Your task to perform on an android device: What's the latest news in space technology? Image 0: 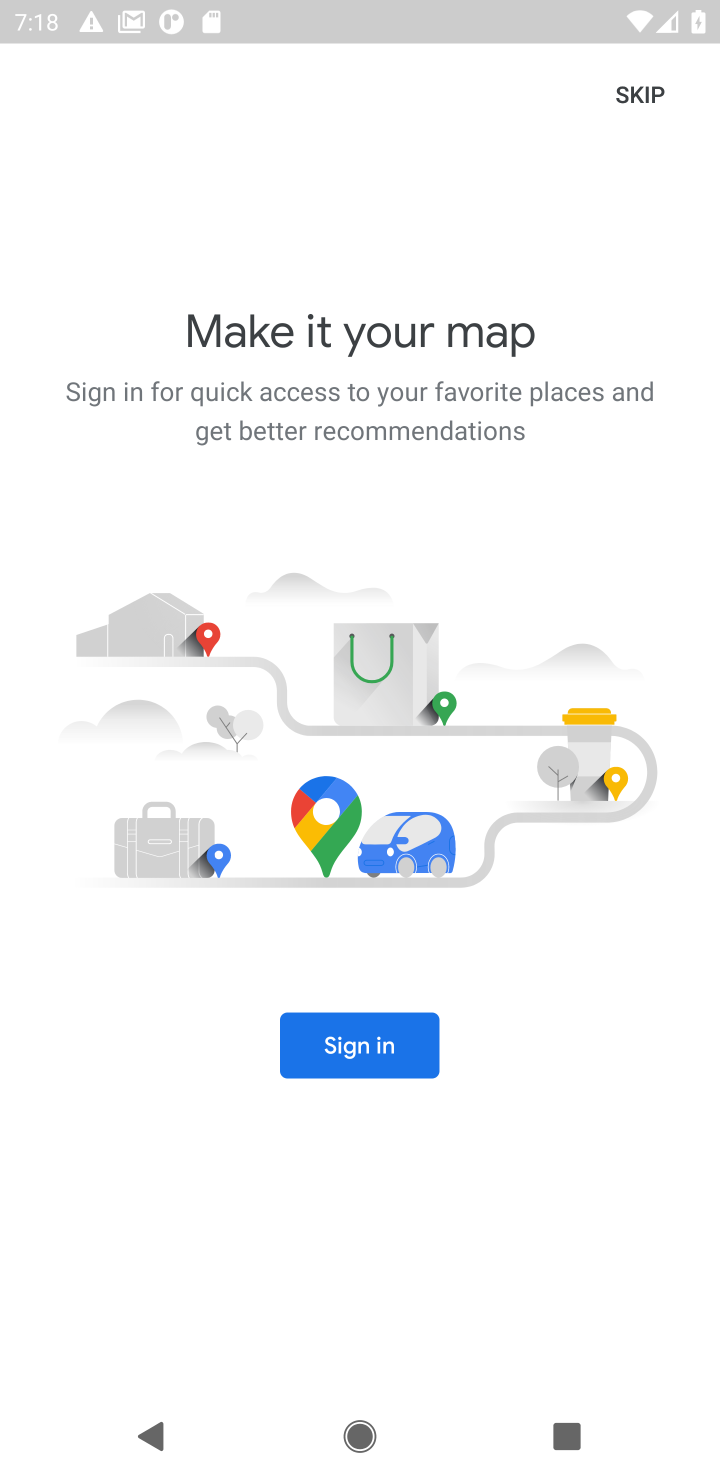
Step 0: press home button
Your task to perform on an android device: What's the latest news in space technology? Image 1: 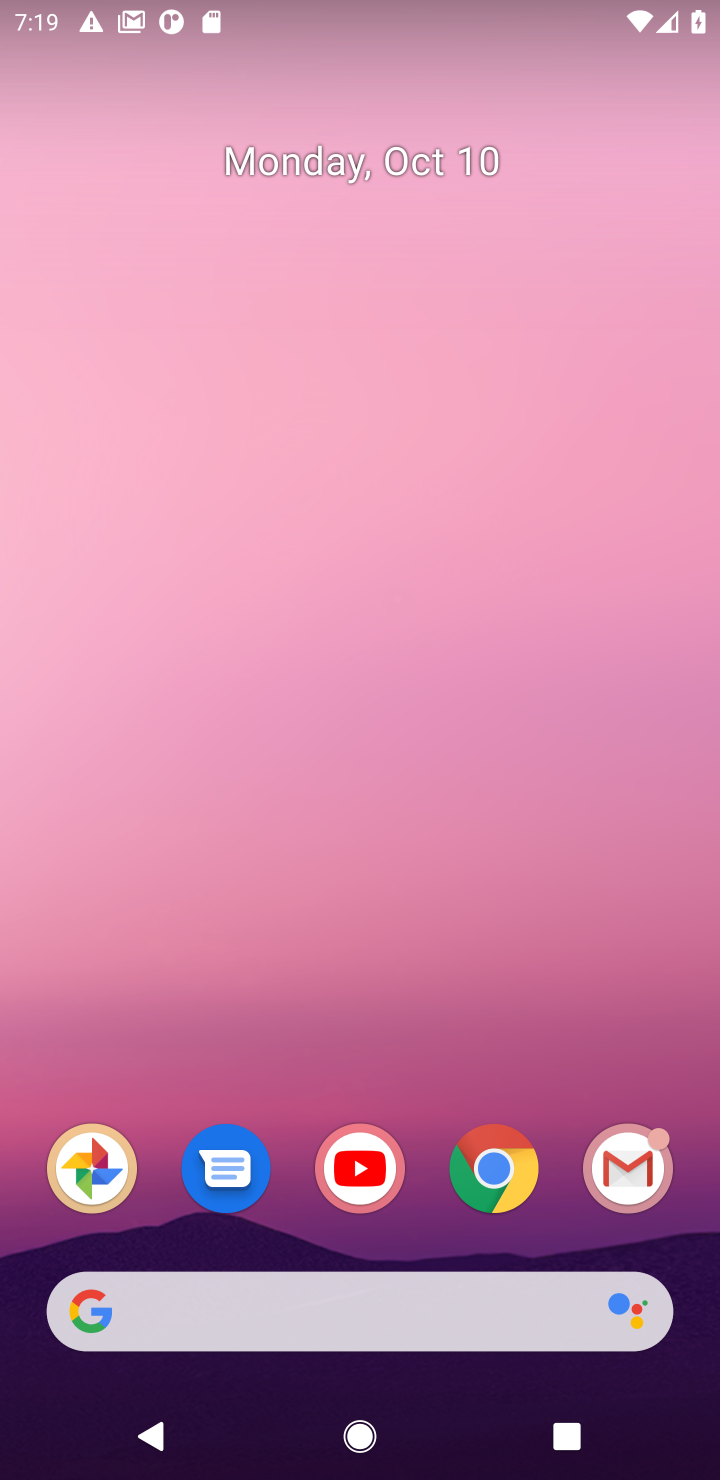
Step 1: click (318, 1319)
Your task to perform on an android device: What's the latest news in space technology? Image 2: 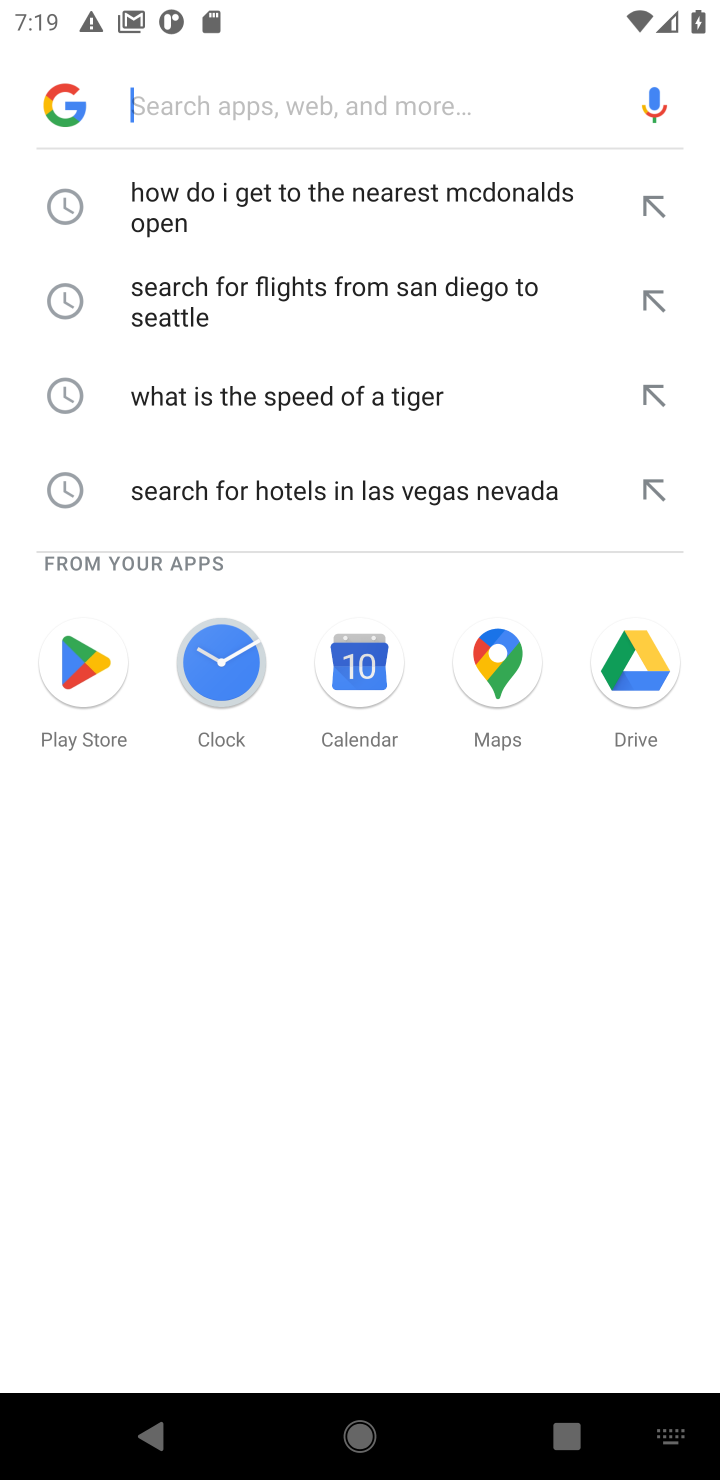
Step 2: click (184, 118)
Your task to perform on an android device: What's the latest news in space technology? Image 3: 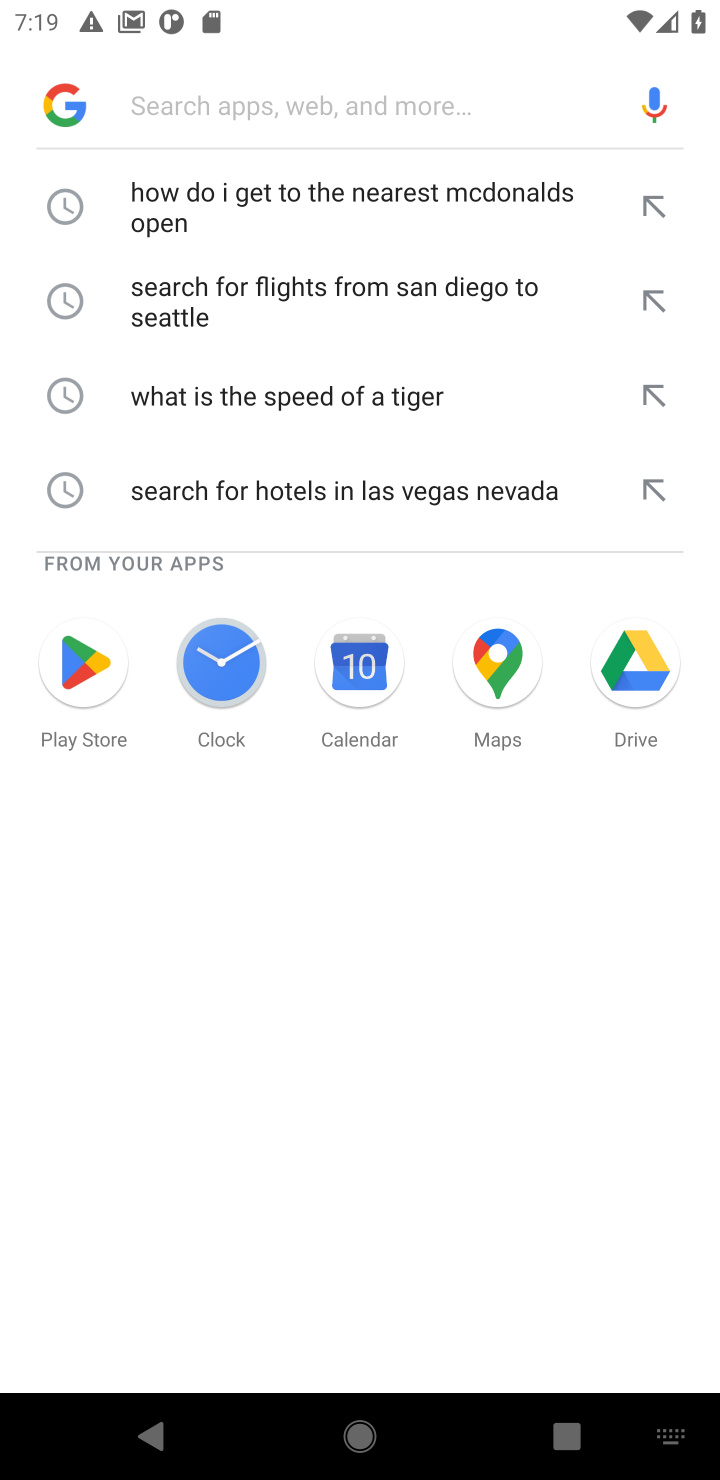
Step 3: type "space technology"
Your task to perform on an android device: What's the latest news in space technology? Image 4: 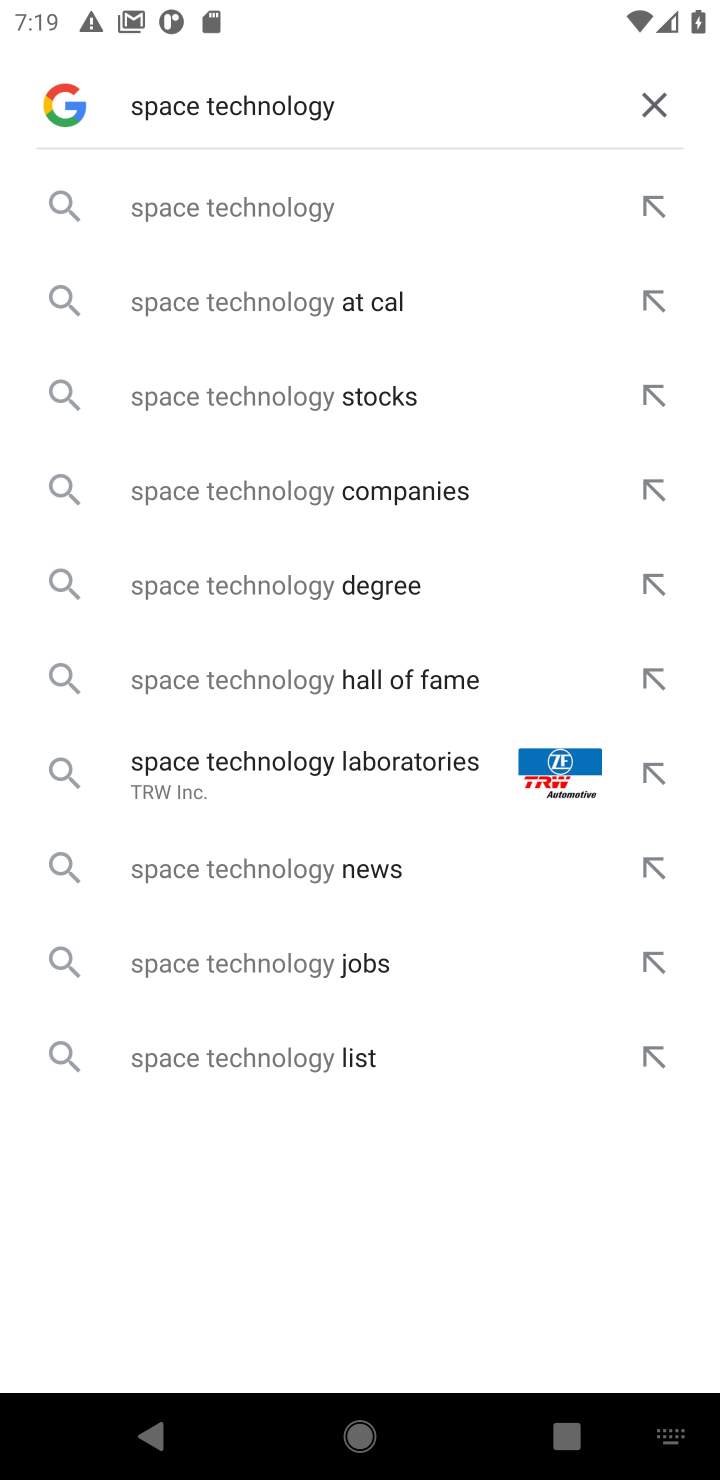
Step 4: click (212, 215)
Your task to perform on an android device: What's the latest news in space technology? Image 5: 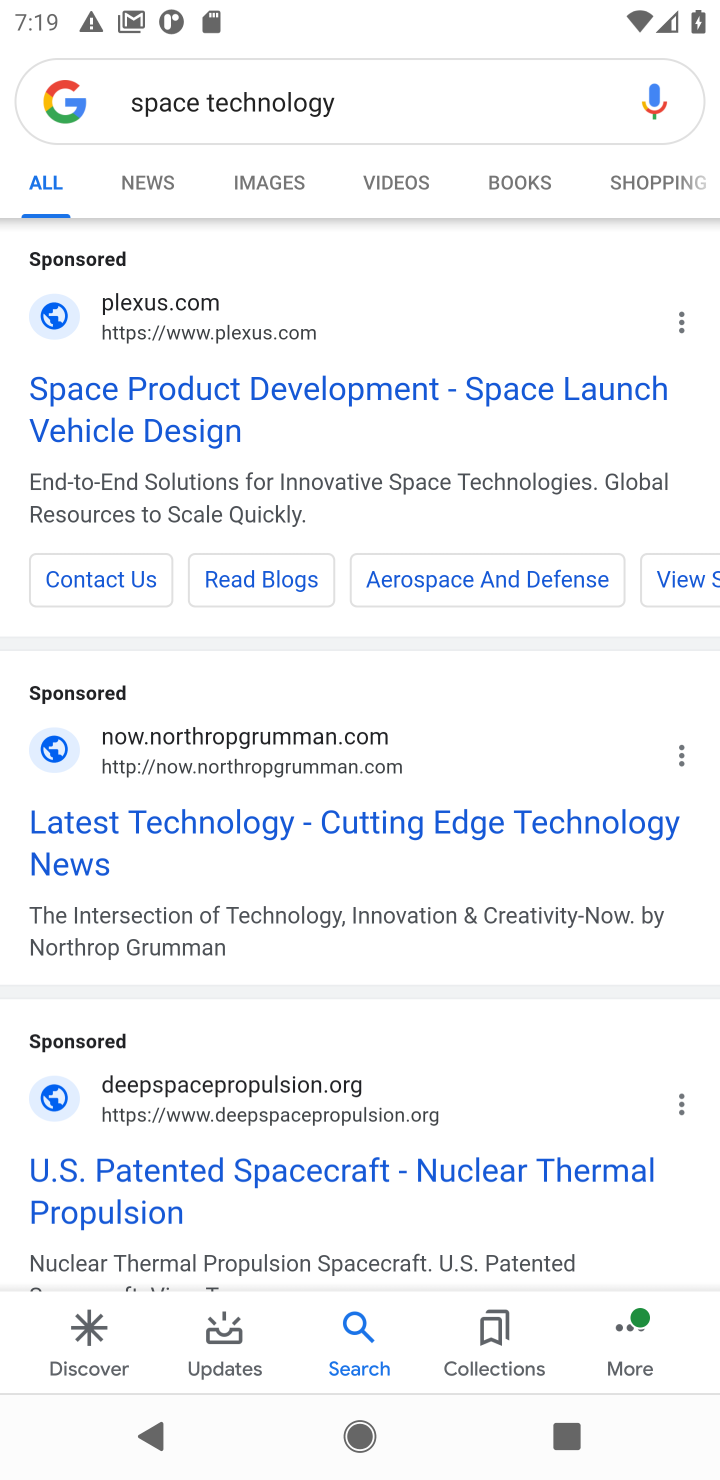
Step 5: click (143, 186)
Your task to perform on an android device: What's the latest news in space technology? Image 6: 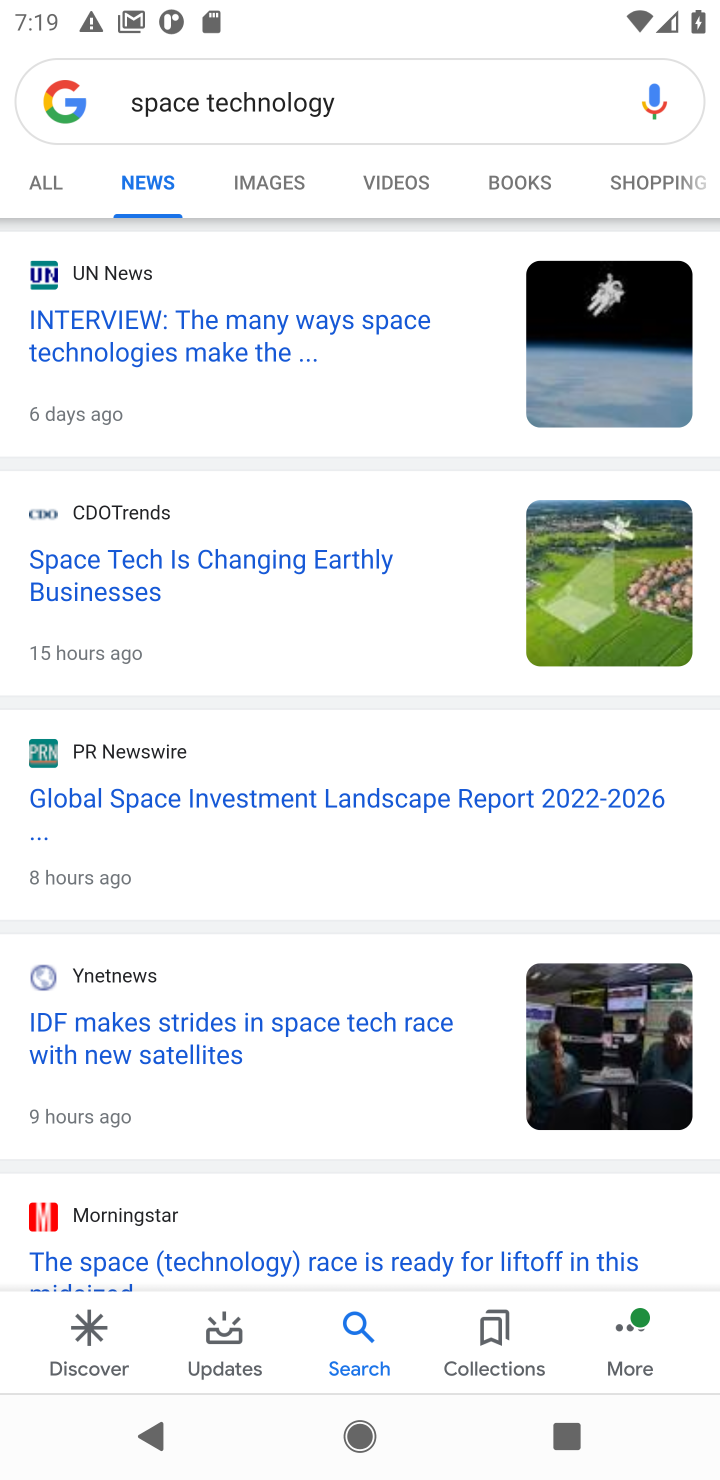
Step 6: click (219, 573)
Your task to perform on an android device: What's the latest news in space technology? Image 7: 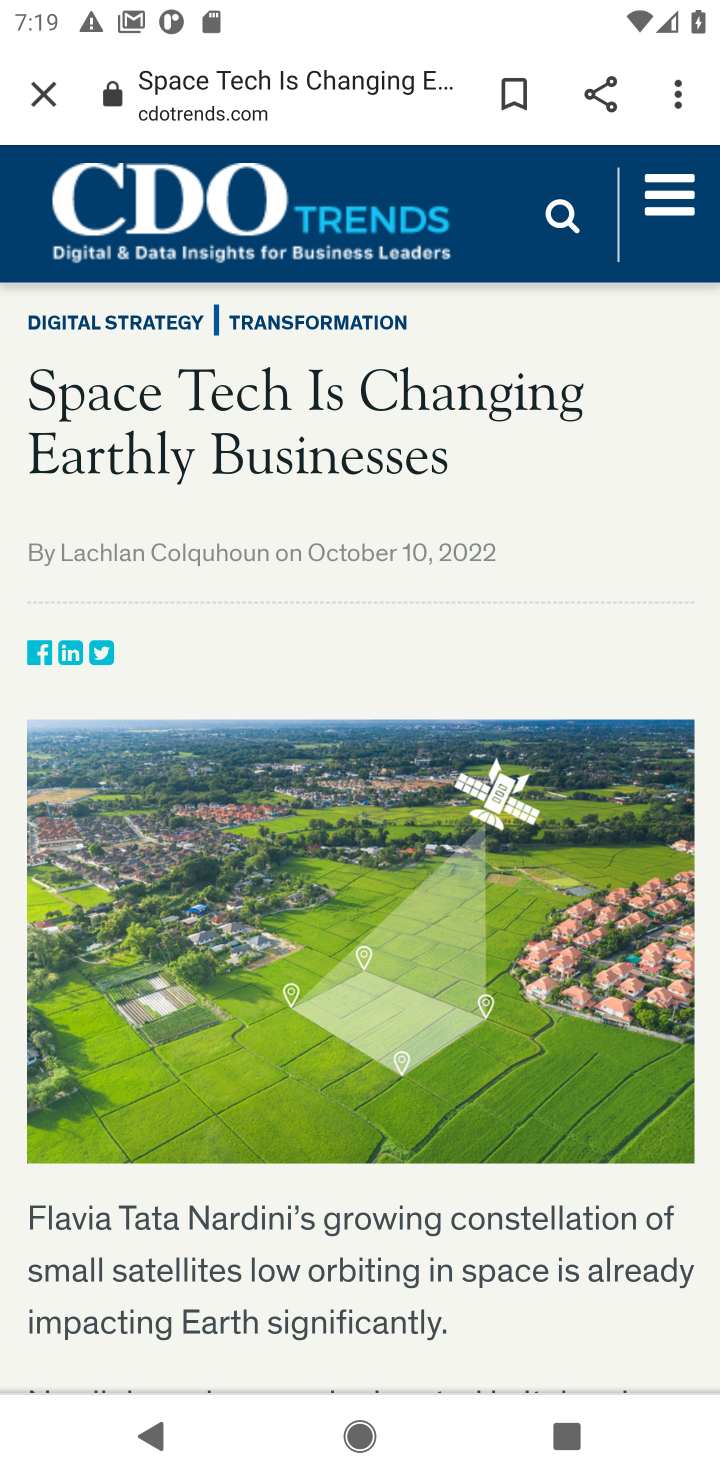
Step 7: task complete